Your task to perform on an android device: Open Chrome and go to settings Image 0: 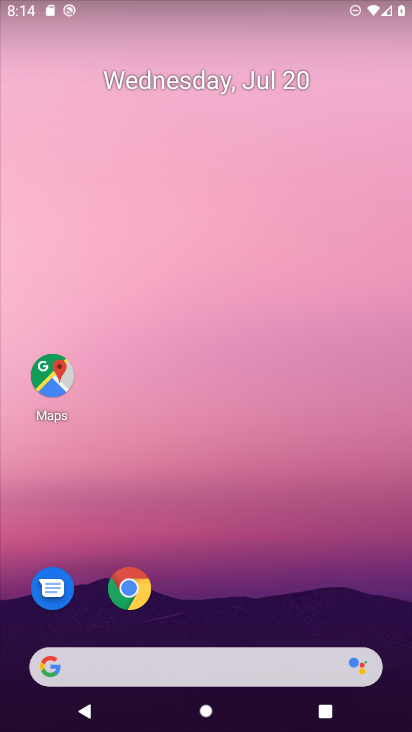
Step 0: click (126, 590)
Your task to perform on an android device: Open Chrome and go to settings Image 1: 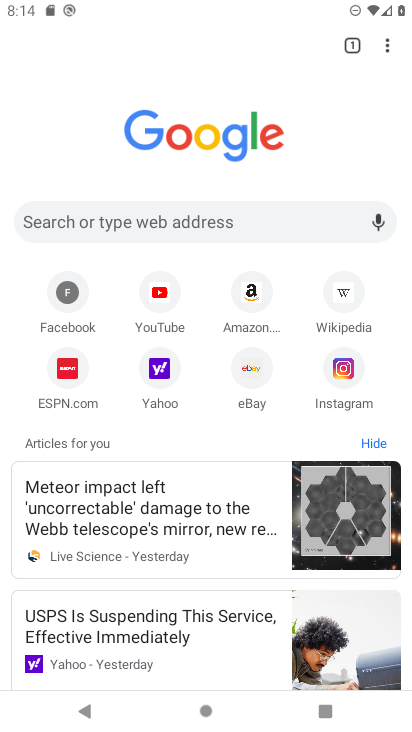
Step 1: click (388, 43)
Your task to perform on an android device: Open Chrome and go to settings Image 2: 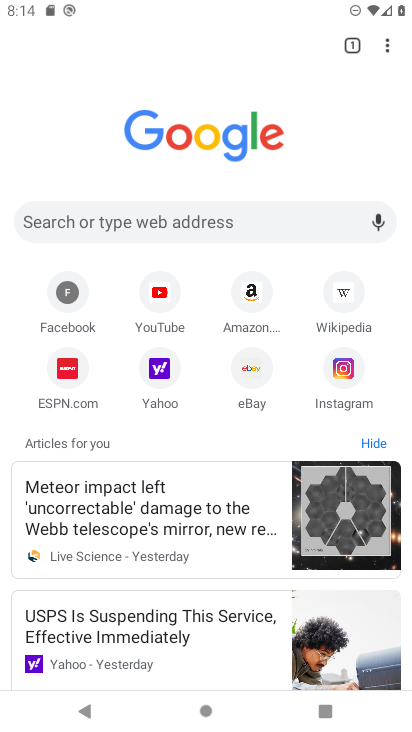
Step 2: click (385, 41)
Your task to perform on an android device: Open Chrome and go to settings Image 3: 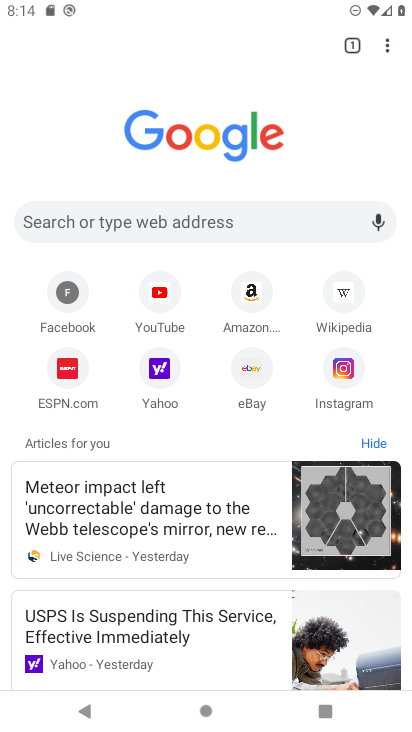
Step 3: click (390, 44)
Your task to perform on an android device: Open Chrome and go to settings Image 4: 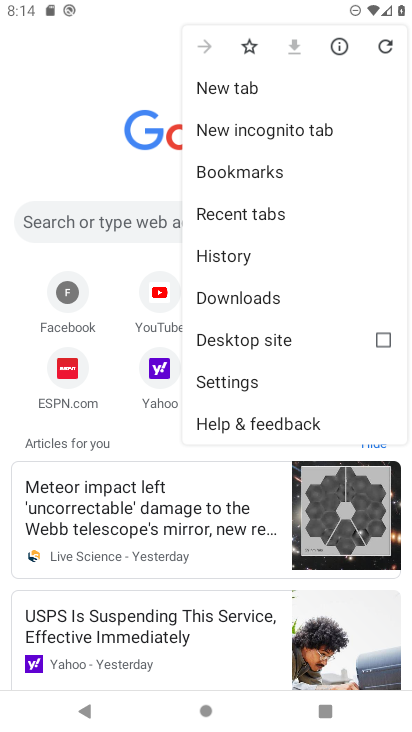
Step 4: click (210, 381)
Your task to perform on an android device: Open Chrome and go to settings Image 5: 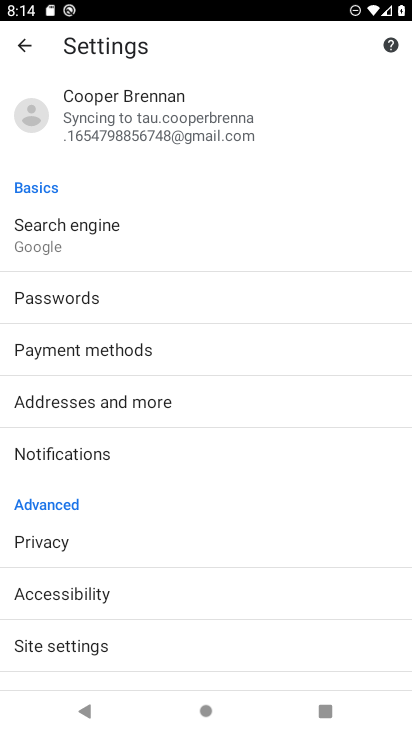
Step 5: task complete